Your task to perform on an android device: set default search engine in the chrome app Image 0: 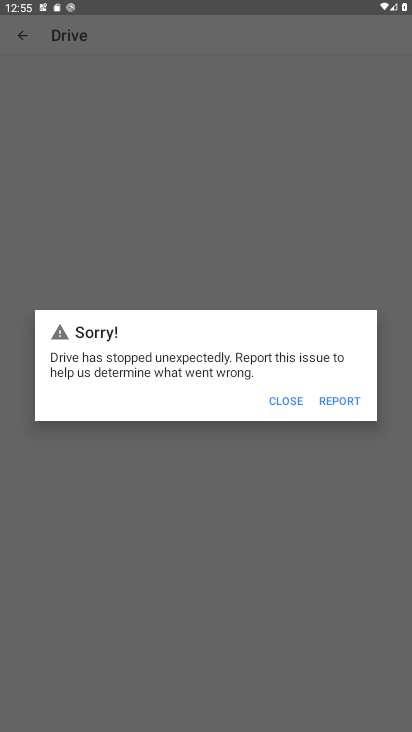
Step 0: click (197, 698)
Your task to perform on an android device: set default search engine in the chrome app Image 1: 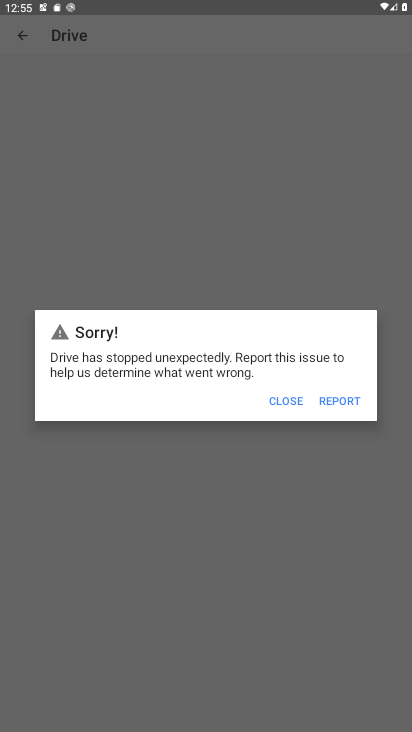
Step 1: click (277, 232)
Your task to perform on an android device: set default search engine in the chrome app Image 2: 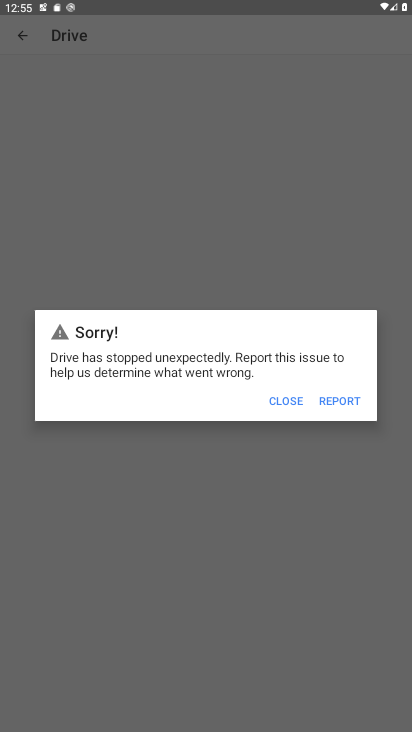
Step 2: click (289, 399)
Your task to perform on an android device: set default search engine in the chrome app Image 3: 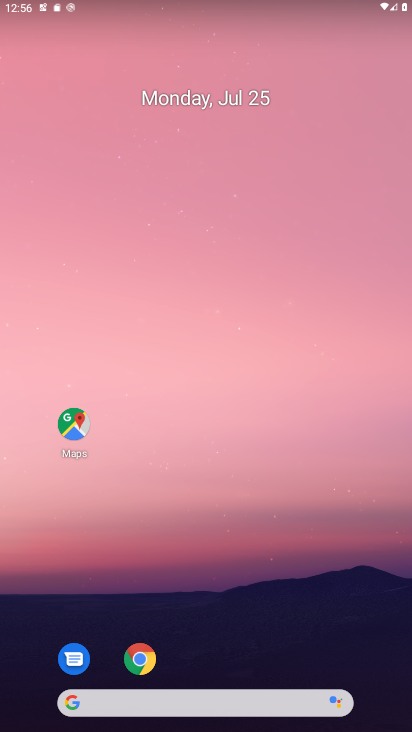
Step 3: click (130, 654)
Your task to perform on an android device: set default search engine in the chrome app Image 4: 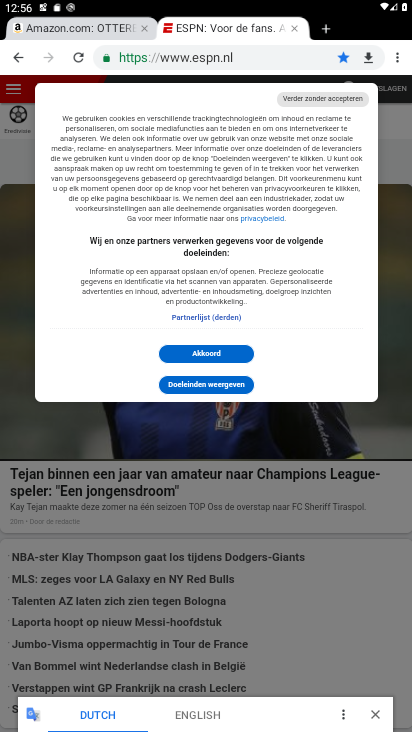
Step 4: click (401, 53)
Your task to perform on an android device: set default search engine in the chrome app Image 5: 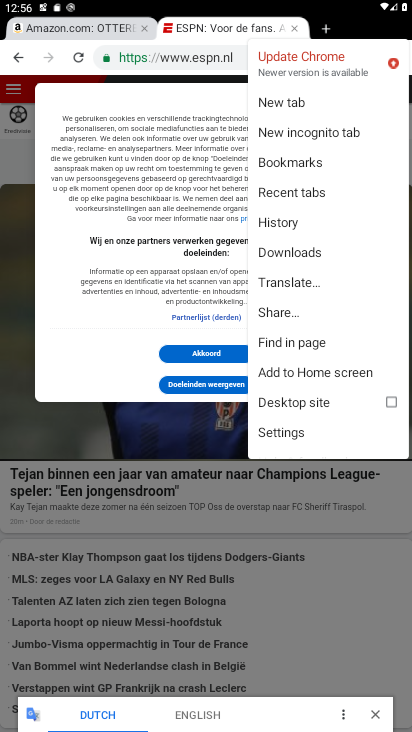
Step 5: click (299, 430)
Your task to perform on an android device: set default search engine in the chrome app Image 6: 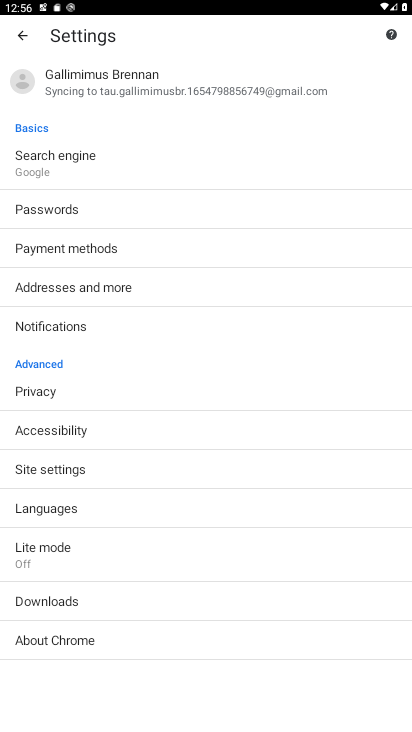
Step 6: click (88, 162)
Your task to perform on an android device: set default search engine in the chrome app Image 7: 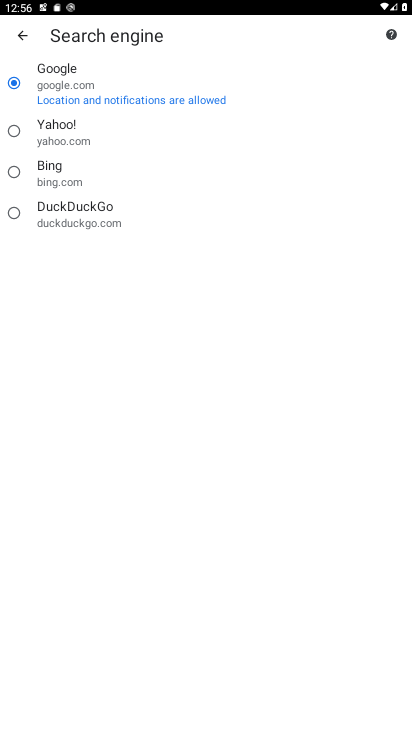
Step 7: click (21, 166)
Your task to perform on an android device: set default search engine in the chrome app Image 8: 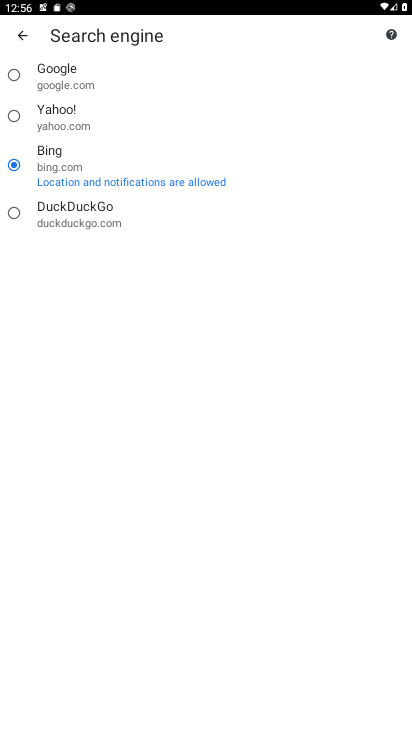
Step 8: task complete